Your task to perform on an android device: toggle priority inbox in the gmail app Image 0: 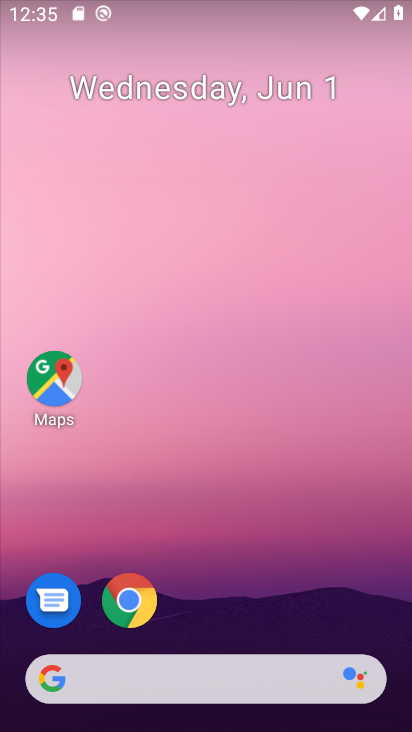
Step 0: drag from (260, 649) to (245, 219)
Your task to perform on an android device: toggle priority inbox in the gmail app Image 1: 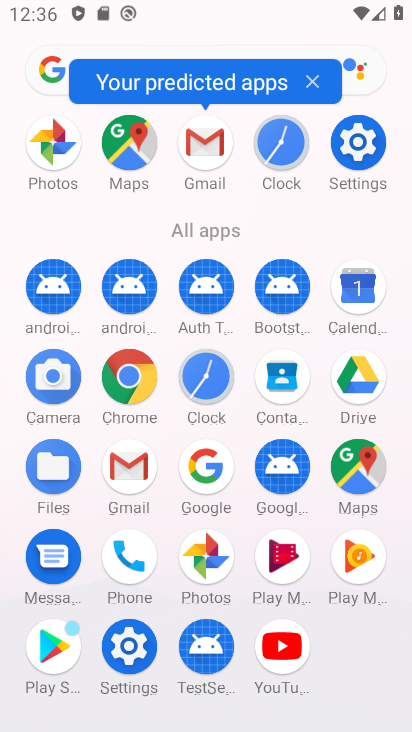
Step 1: click (203, 170)
Your task to perform on an android device: toggle priority inbox in the gmail app Image 2: 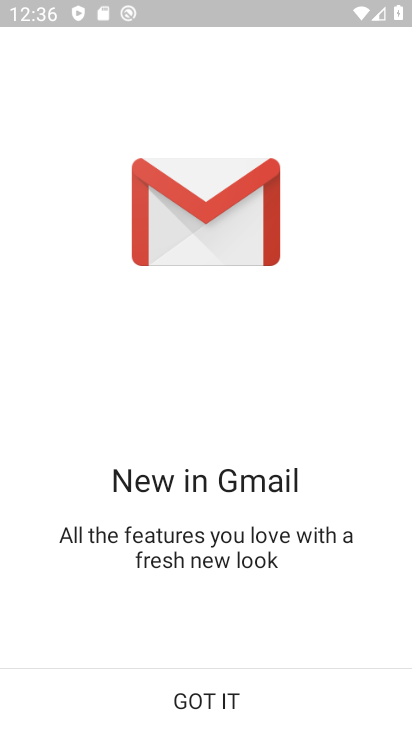
Step 2: click (206, 697)
Your task to perform on an android device: toggle priority inbox in the gmail app Image 3: 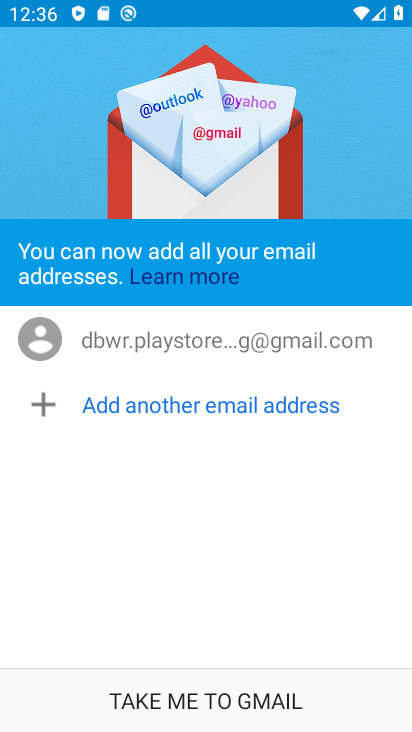
Step 3: click (206, 697)
Your task to perform on an android device: toggle priority inbox in the gmail app Image 4: 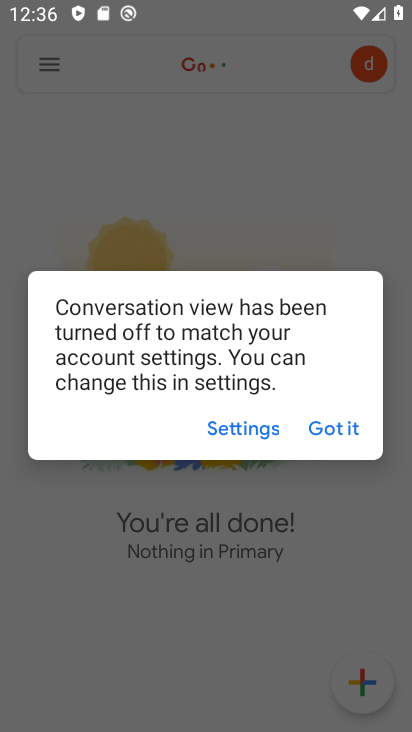
Step 4: click (342, 436)
Your task to perform on an android device: toggle priority inbox in the gmail app Image 5: 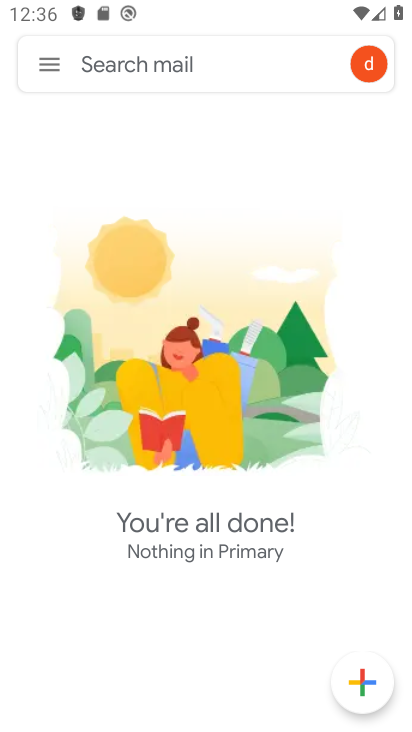
Step 5: click (48, 71)
Your task to perform on an android device: toggle priority inbox in the gmail app Image 6: 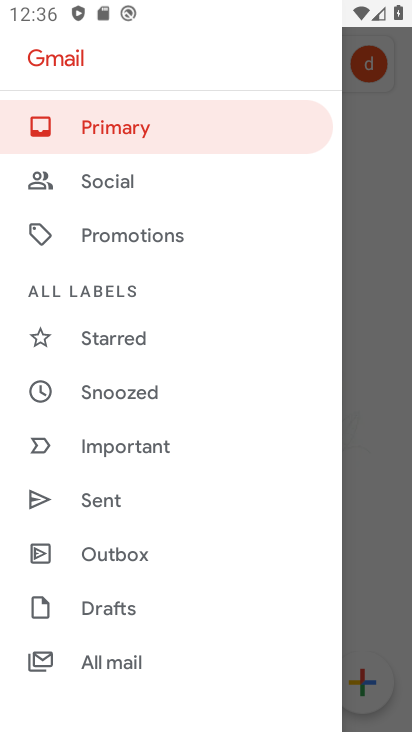
Step 6: drag from (121, 640) to (136, 193)
Your task to perform on an android device: toggle priority inbox in the gmail app Image 7: 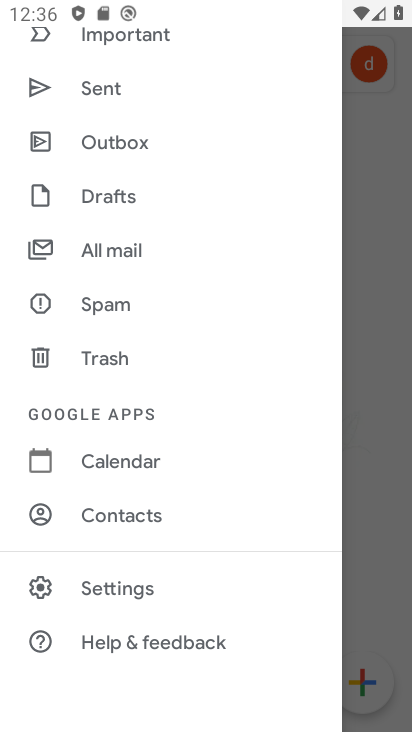
Step 7: click (112, 587)
Your task to perform on an android device: toggle priority inbox in the gmail app Image 8: 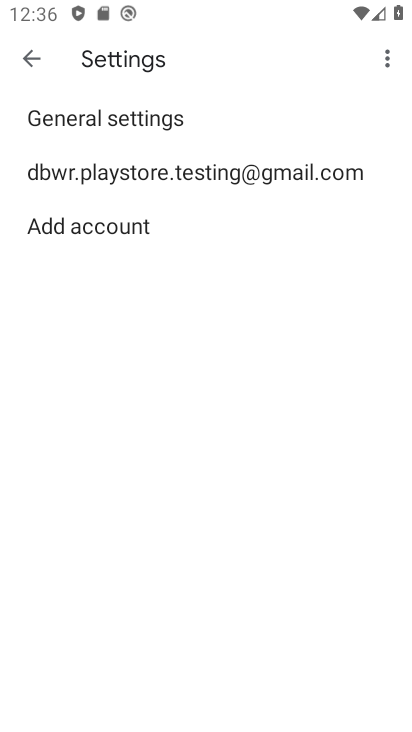
Step 8: click (196, 173)
Your task to perform on an android device: toggle priority inbox in the gmail app Image 9: 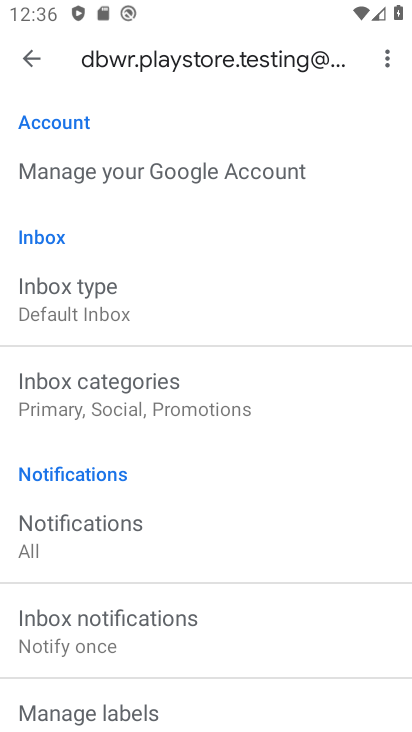
Step 9: click (81, 303)
Your task to perform on an android device: toggle priority inbox in the gmail app Image 10: 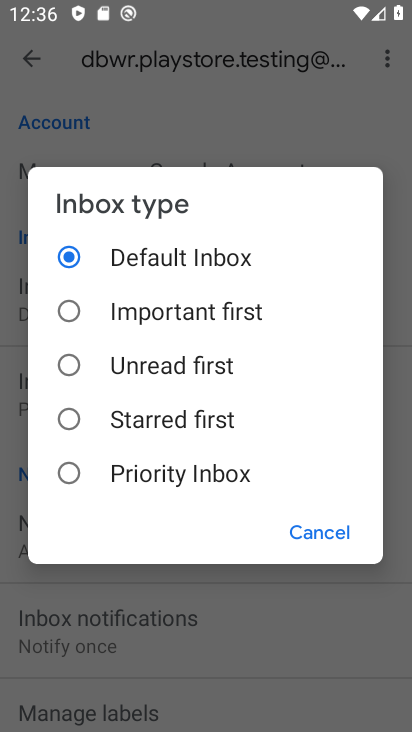
Step 10: click (78, 475)
Your task to perform on an android device: toggle priority inbox in the gmail app Image 11: 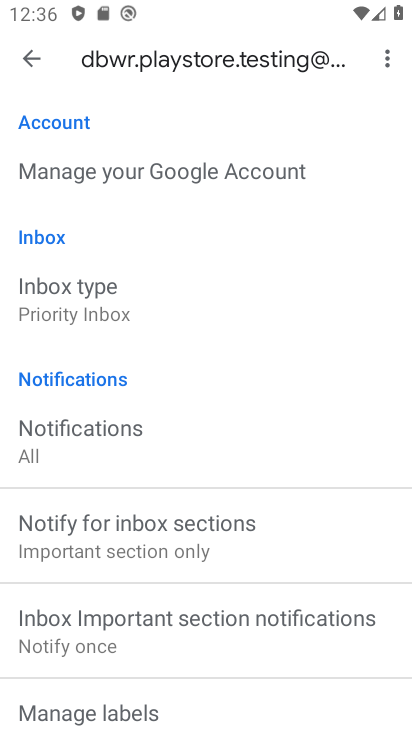
Step 11: task complete